Your task to perform on an android device: Go to display settings Image 0: 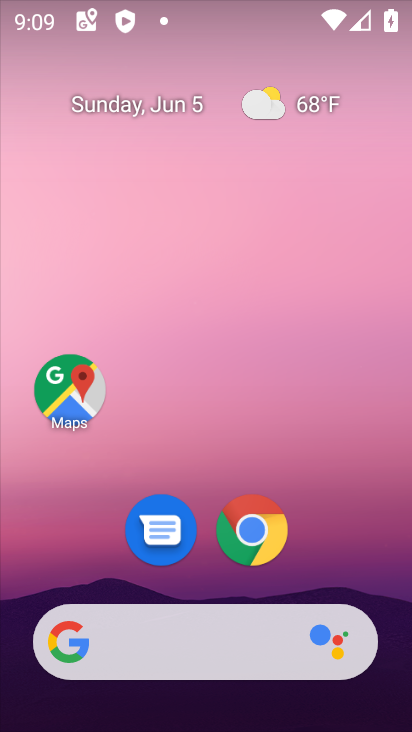
Step 0: drag from (404, 622) to (355, 87)
Your task to perform on an android device: Go to display settings Image 1: 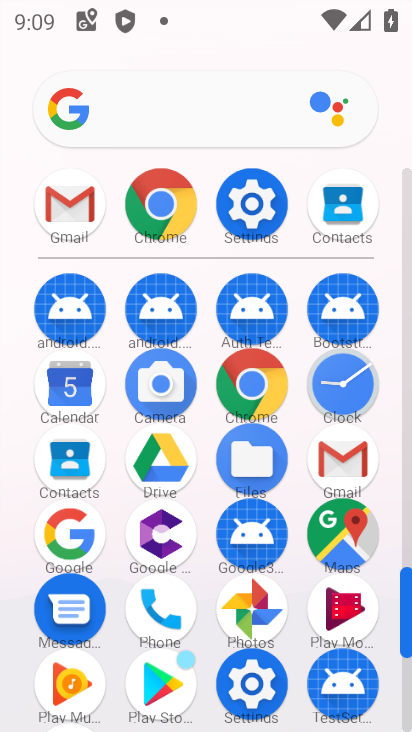
Step 1: click (405, 696)
Your task to perform on an android device: Go to display settings Image 2: 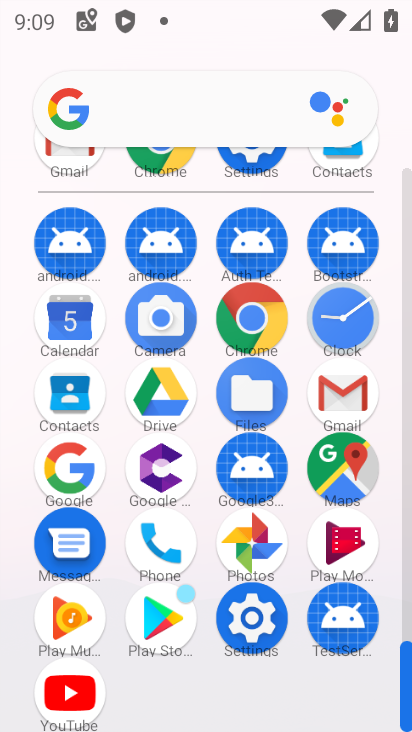
Step 2: click (252, 621)
Your task to perform on an android device: Go to display settings Image 3: 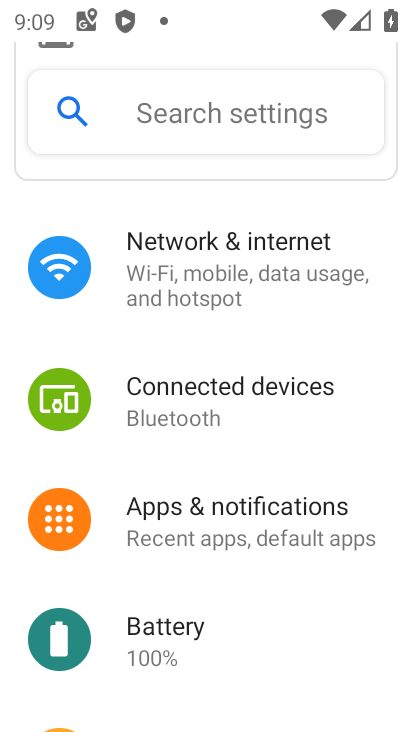
Step 3: drag from (257, 584) to (260, 321)
Your task to perform on an android device: Go to display settings Image 4: 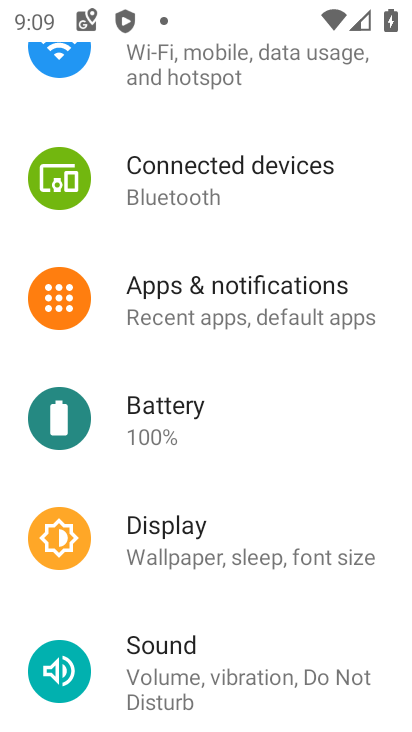
Step 4: click (164, 532)
Your task to perform on an android device: Go to display settings Image 5: 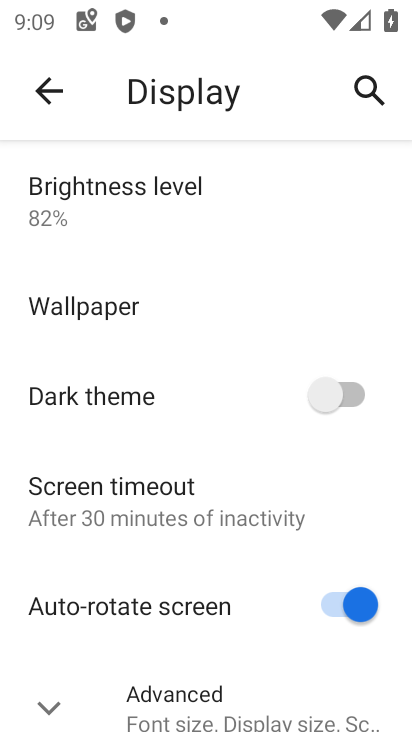
Step 5: drag from (249, 655) to (230, 284)
Your task to perform on an android device: Go to display settings Image 6: 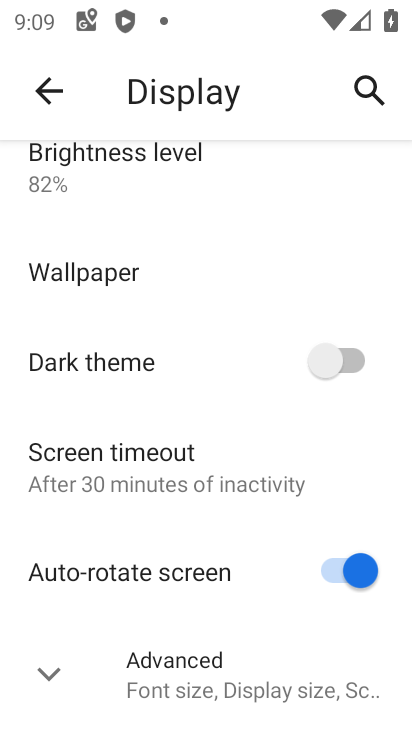
Step 6: click (43, 680)
Your task to perform on an android device: Go to display settings Image 7: 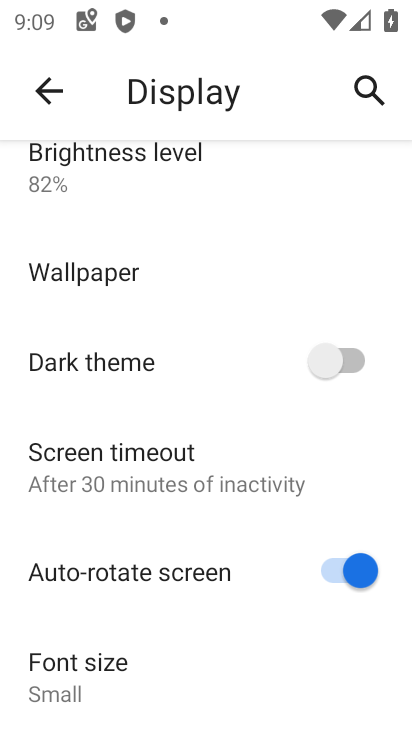
Step 7: task complete